Your task to perform on an android device: uninstall "Pluto TV - Live TV and Movies" Image 0: 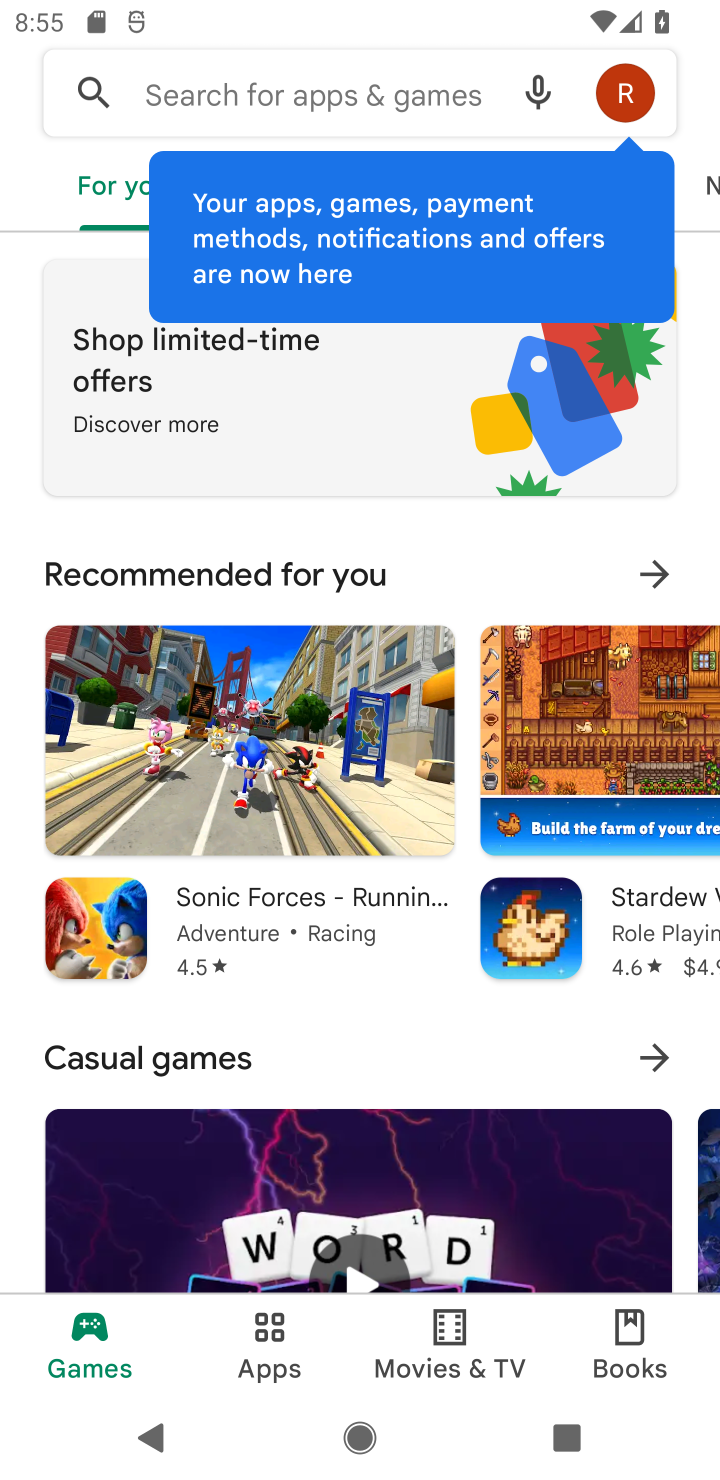
Step 0: click (310, 73)
Your task to perform on an android device: uninstall "Pluto TV - Live TV and Movies" Image 1: 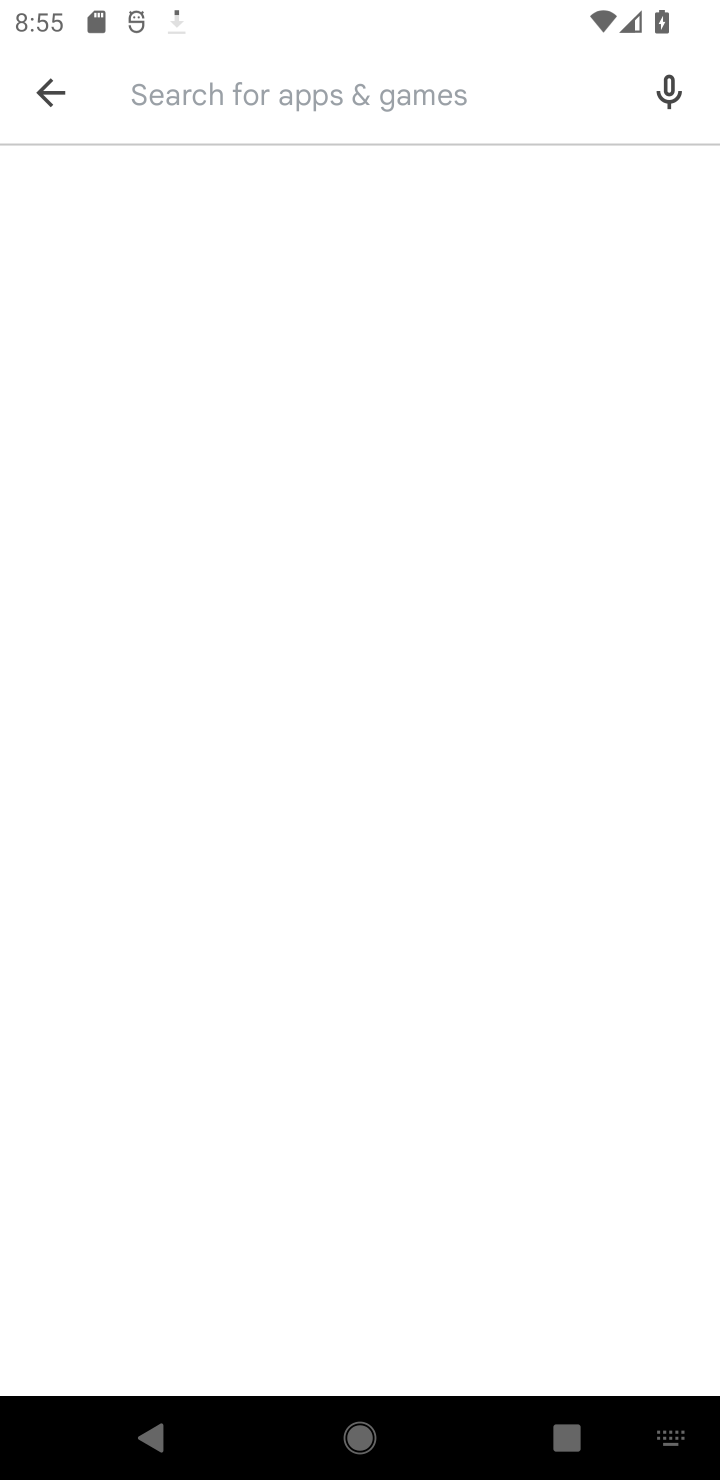
Step 1: type "Pluto TV "
Your task to perform on an android device: uninstall "Pluto TV - Live TV and Movies" Image 2: 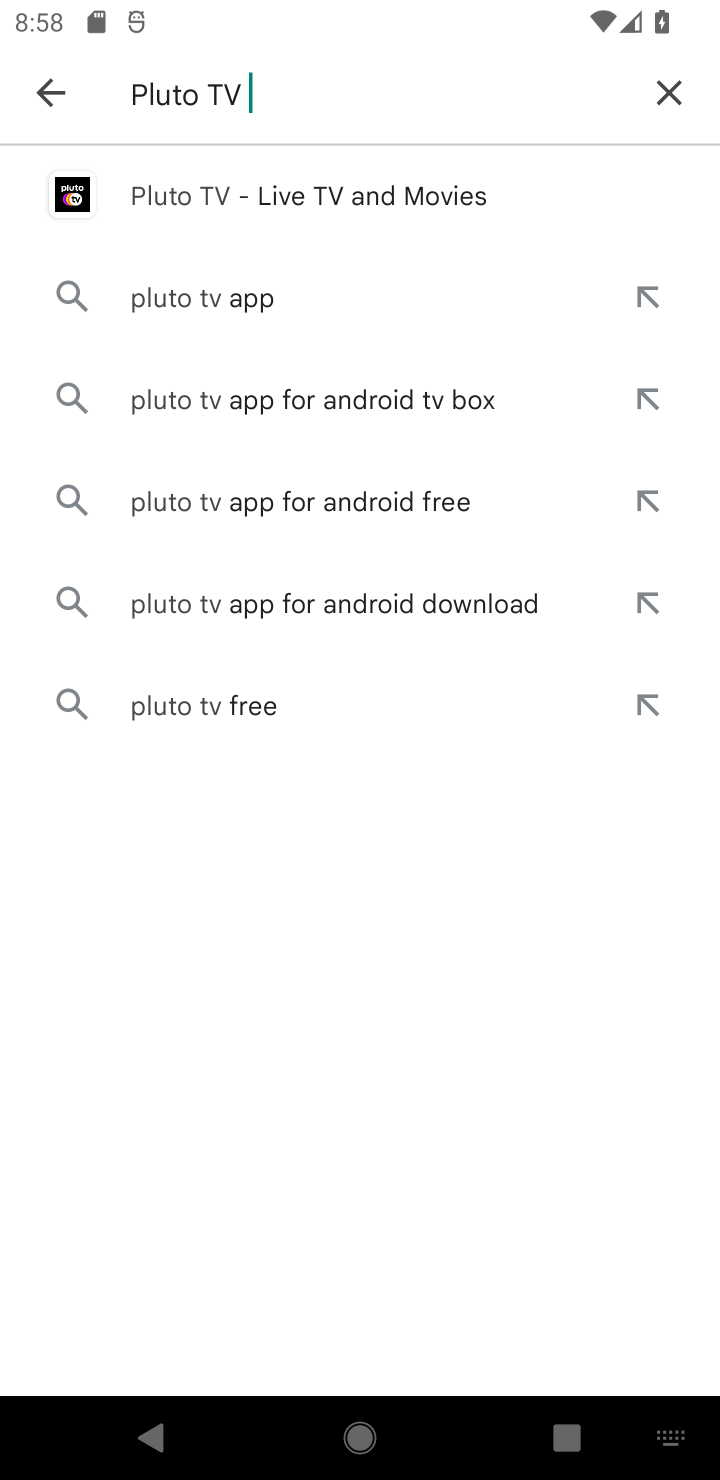
Step 2: click (221, 176)
Your task to perform on an android device: uninstall "Pluto TV - Live TV and Movies" Image 3: 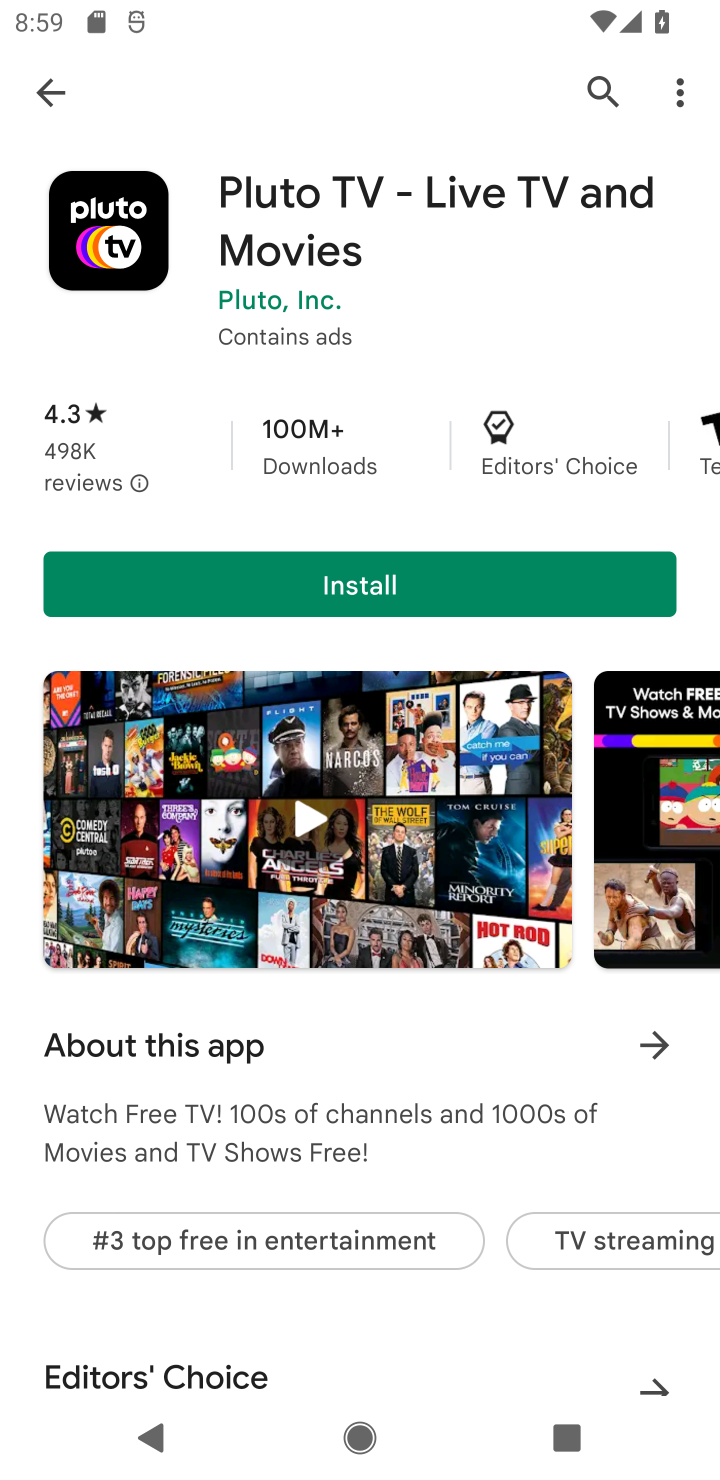
Step 3: click (415, 578)
Your task to perform on an android device: uninstall "Pluto TV - Live TV and Movies" Image 4: 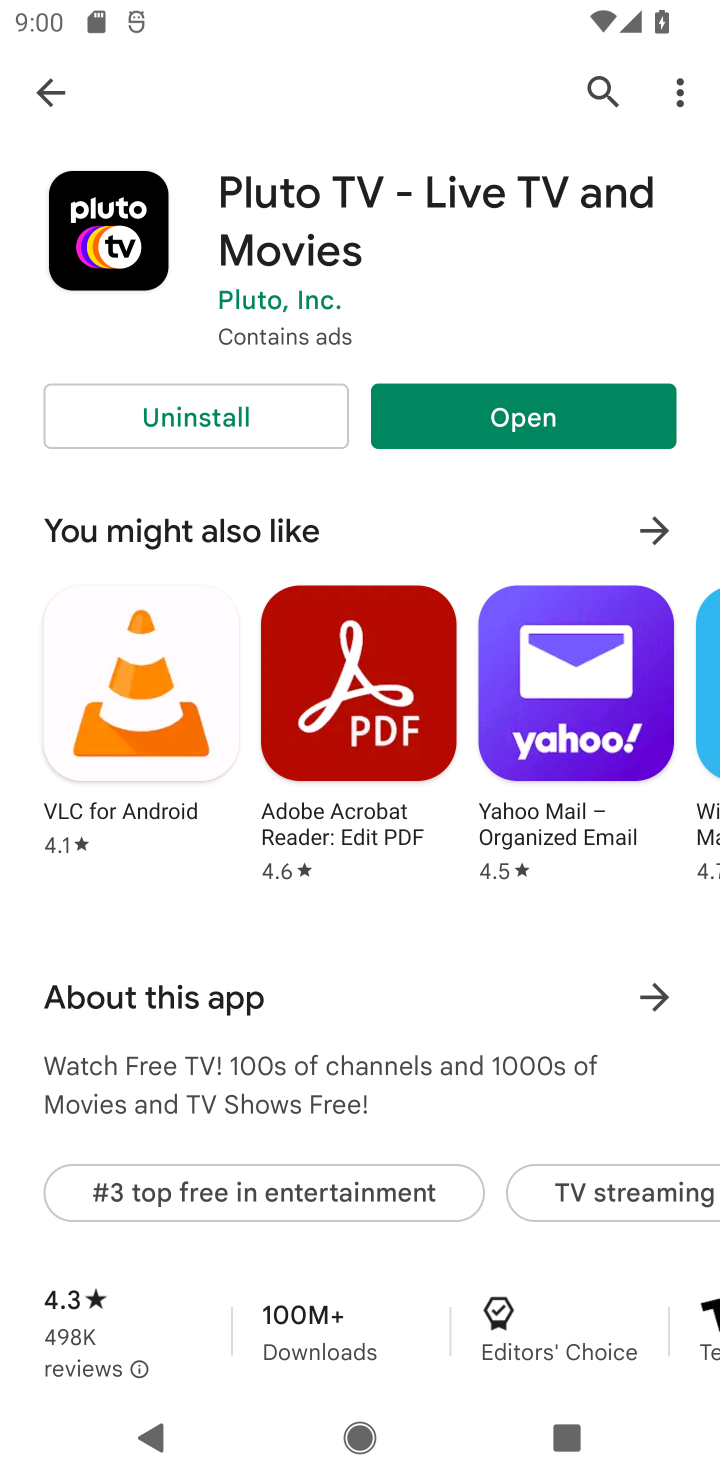
Step 4: click (590, 429)
Your task to perform on an android device: uninstall "Pluto TV - Live TV and Movies" Image 5: 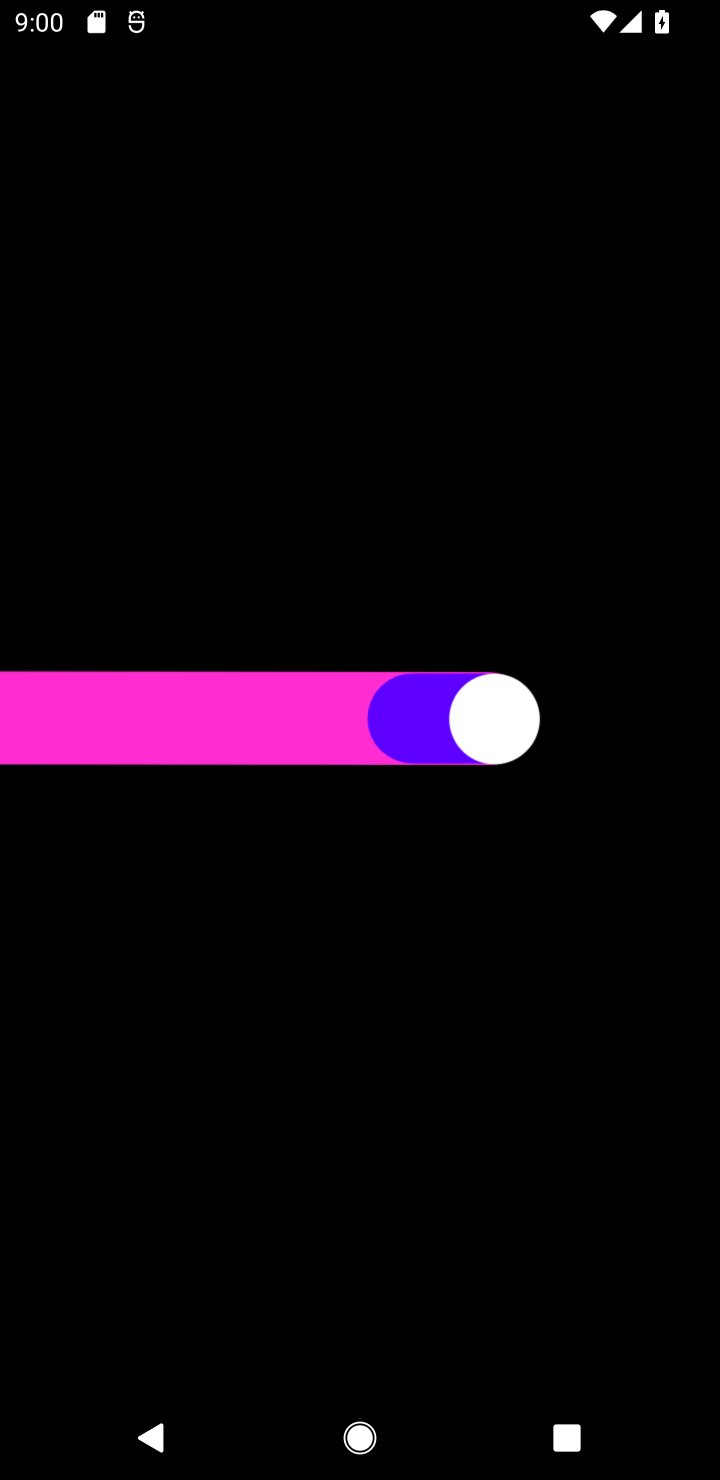
Step 5: press back button
Your task to perform on an android device: uninstall "Pluto TV - Live TV and Movies" Image 6: 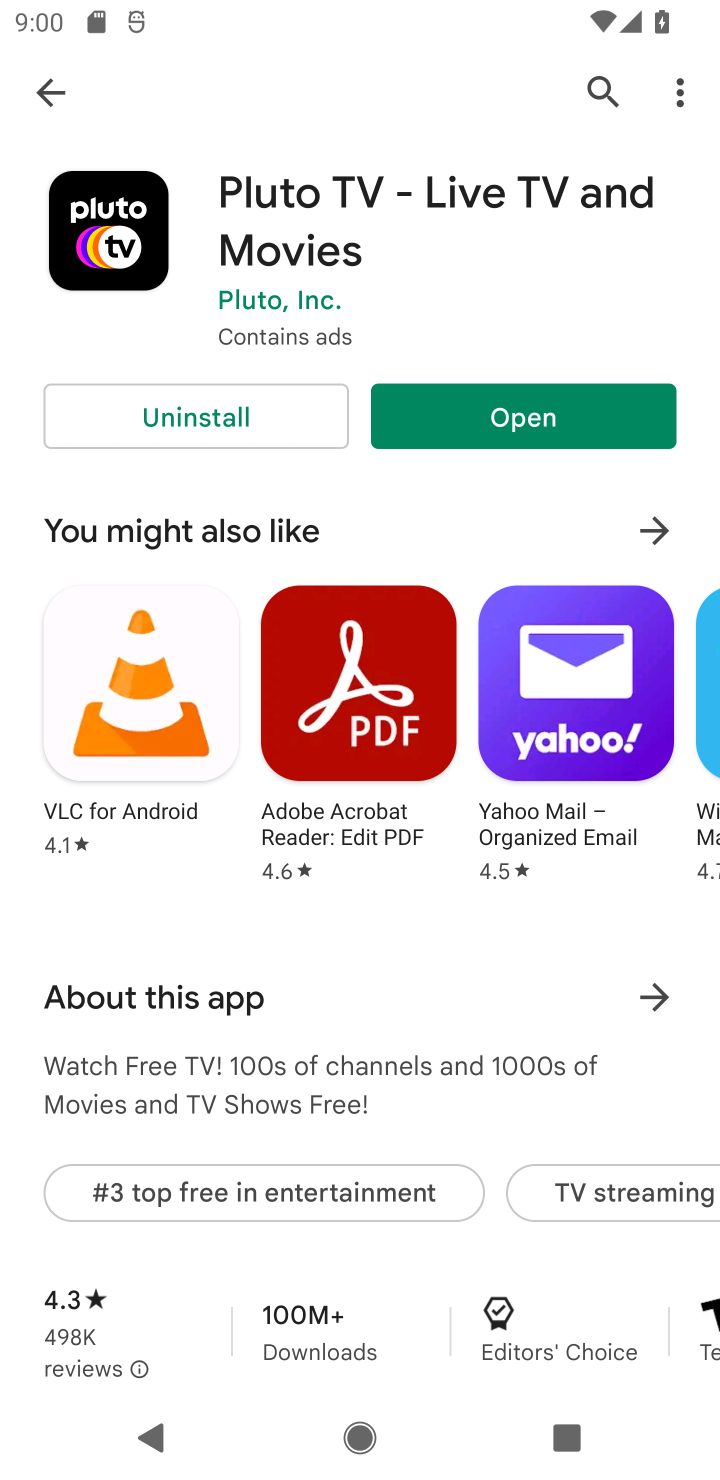
Step 6: click (225, 411)
Your task to perform on an android device: uninstall "Pluto TV - Live TV and Movies" Image 7: 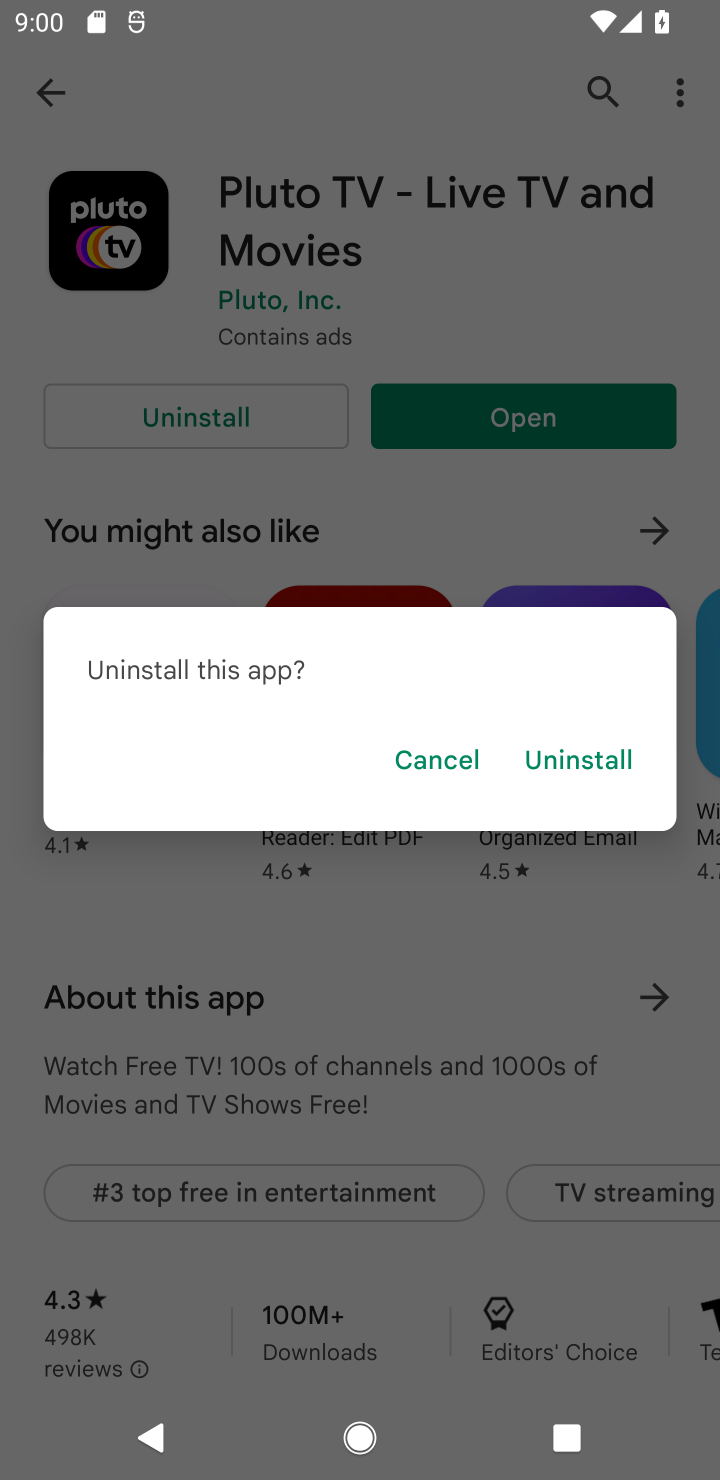
Step 7: click (574, 759)
Your task to perform on an android device: uninstall "Pluto TV - Live TV and Movies" Image 8: 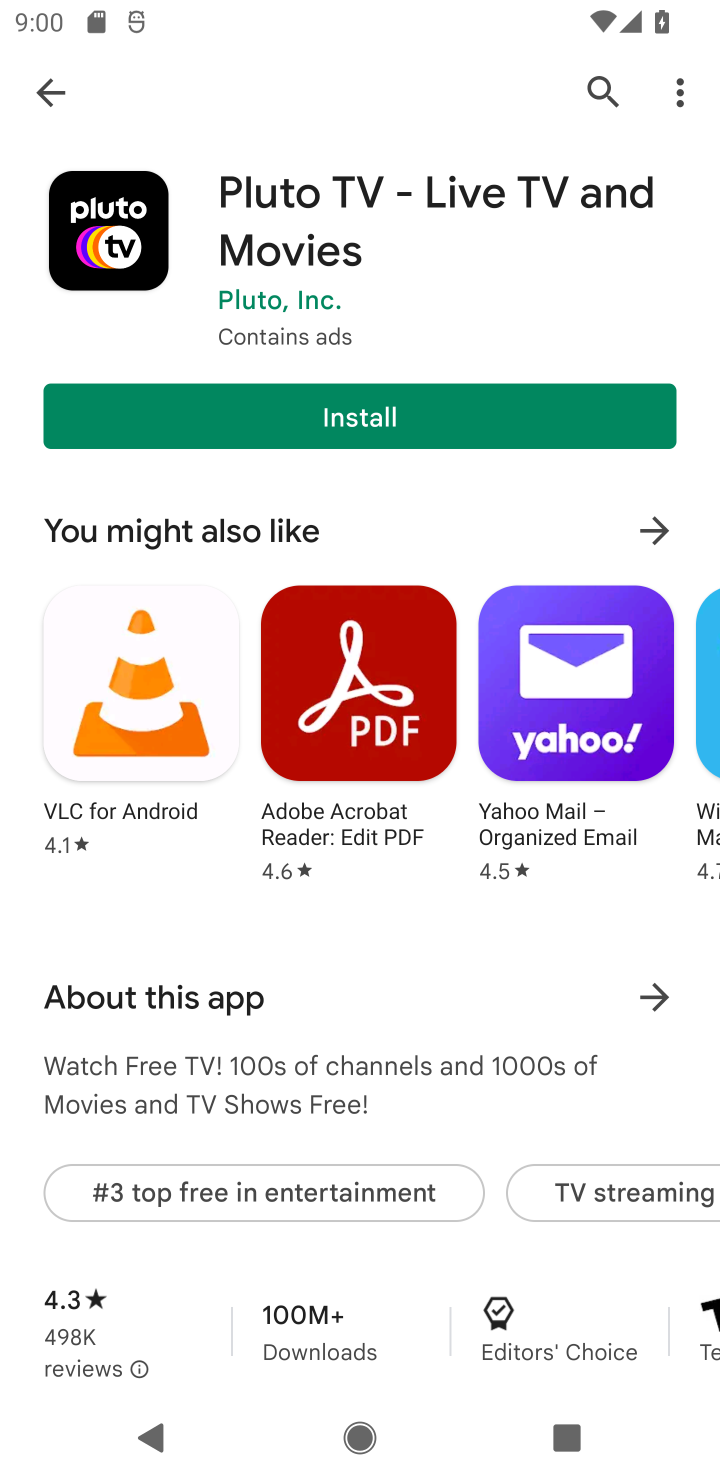
Step 8: task complete